Your task to perform on an android device: Is it going to rain this weekend? Image 0: 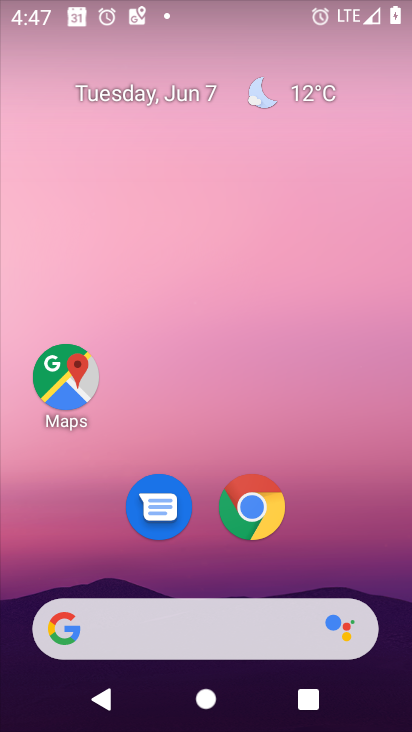
Step 0: drag from (320, 510) to (240, 7)
Your task to perform on an android device: Is it going to rain this weekend? Image 1: 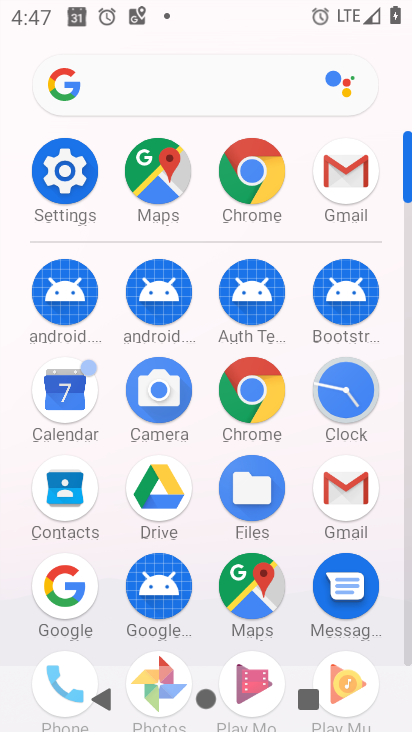
Step 1: drag from (9, 280) to (9, 186)
Your task to perform on an android device: Is it going to rain this weekend? Image 2: 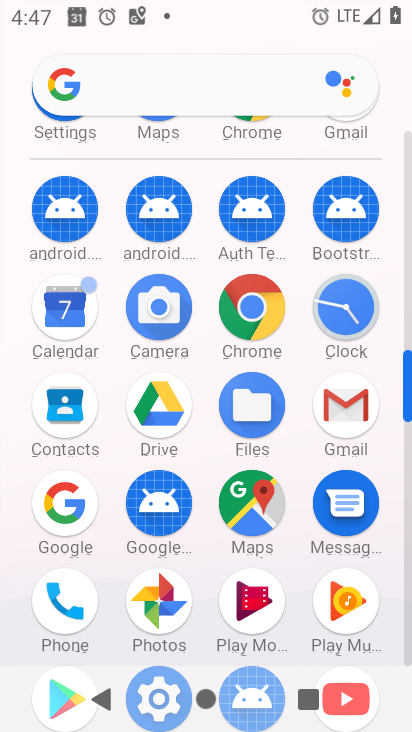
Step 2: drag from (10, 540) to (8, 185)
Your task to perform on an android device: Is it going to rain this weekend? Image 3: 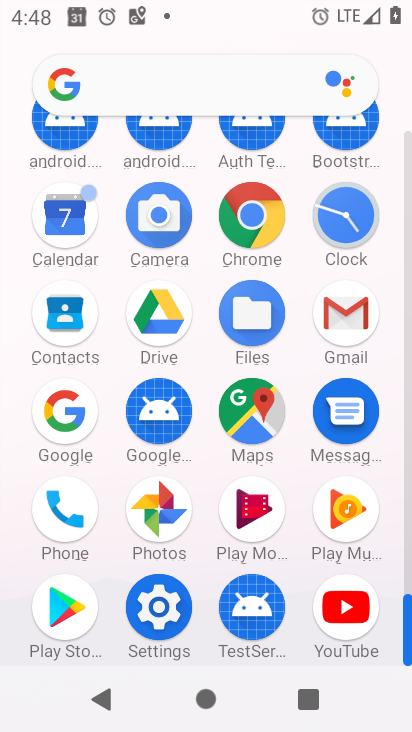
Step 3: click (160, 602)
Your task to perform on an android device: Is it going to rain this weekend? Image 4: 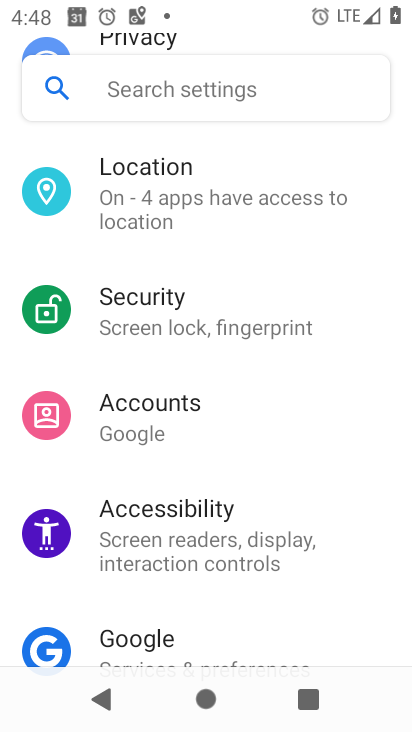
Step 4: drag from (302, 257) to (302, 608)
Your task to perform on an android device: Is it going to rain this weekend? Image 5: 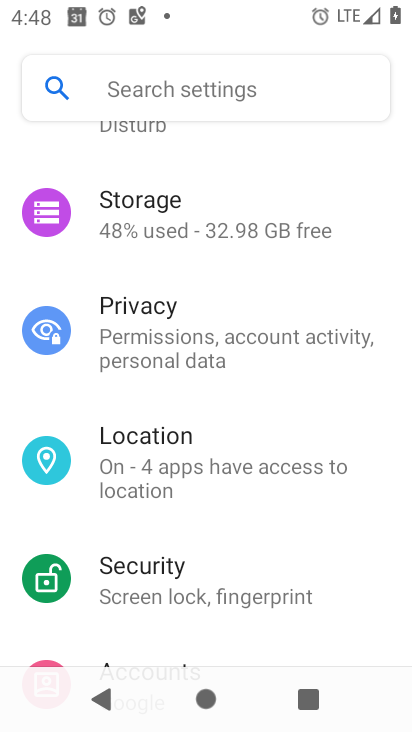
Step 5: drag from (295, 273) to (275, 581)
Your task to perform on an android device: Is it going to rain this weekend? Image 6: 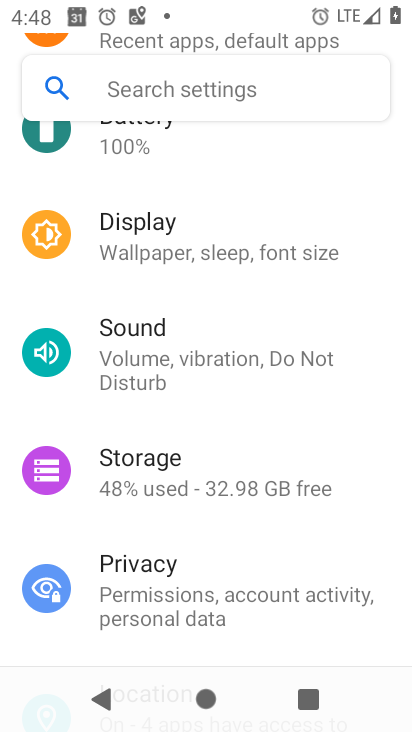
Step 6: drag from (228, 518) to (233, 200)
Your task to perform on an android device: Is it going to rain this weekend? Image 7: 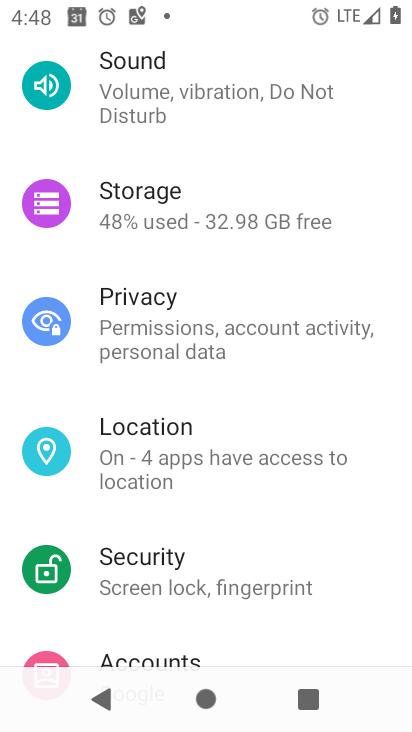
Step 7: drag from (252, 609) to (270, 192)
Your task to perform on an android device: Is it going to rain this weekend? Image 8: 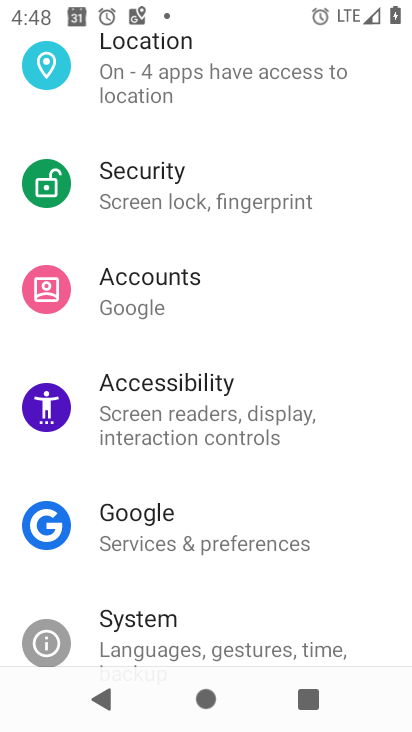
Step 8: drag from (250, 541) to (249, 161)
Your task to perform on an android device: Is it going to rain this weekend? Image 9: 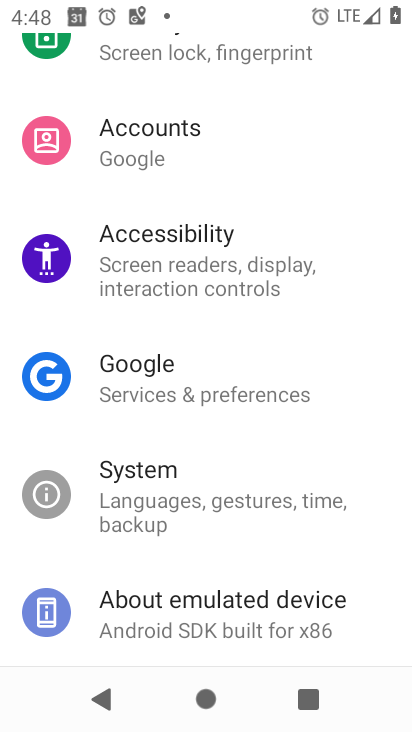
Step 9: drag from (202, 626) to (248, 295)
Your task to perform on an android device: Is it going to rain this weekend? Image 10: 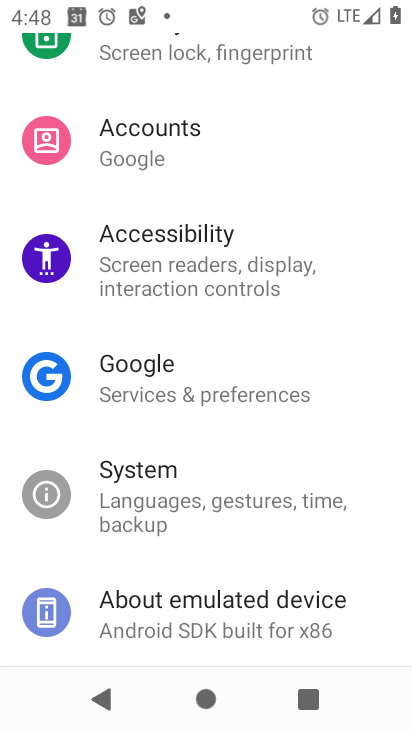
Step 10: drag from (260, 146) to (248, 613)
Your task to perform on an android device: Is it going to rain this weekend? Image 11: 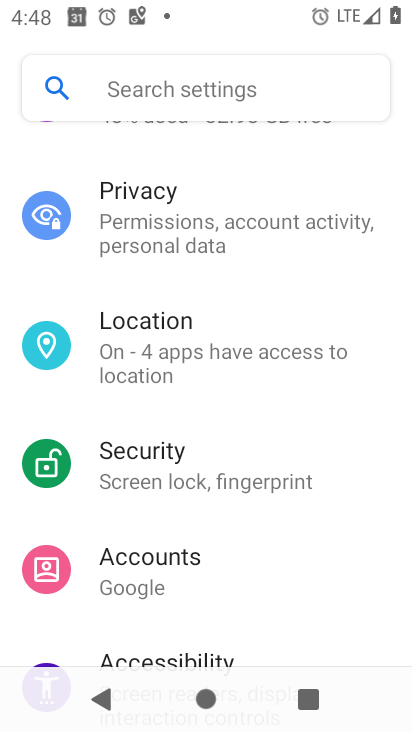
Step 11: drag from (245, 229) to (254, 598)
Your task to perform on an android device: Is it going to rain this weekend? Image 12: 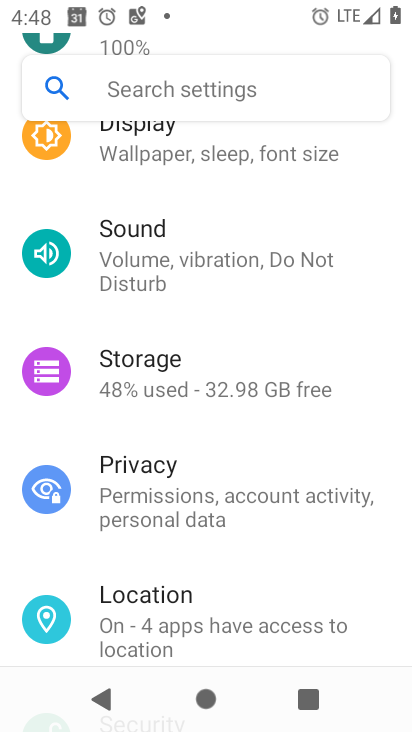
Step 12: drag from (253, 187) to (241, 576)
Your task to perform on an android device: Is it going to rain this weekend? Image 13: 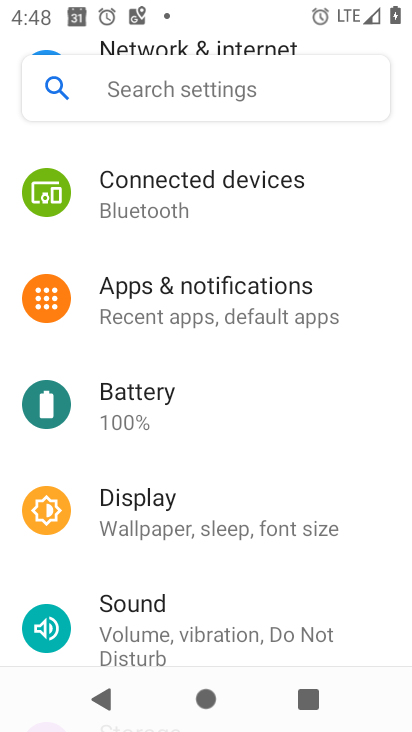
Step 13: drag from (263, 303) to (243, 606)
Your task to perform on an android device: Is it going to rain this weekend? Image 14: 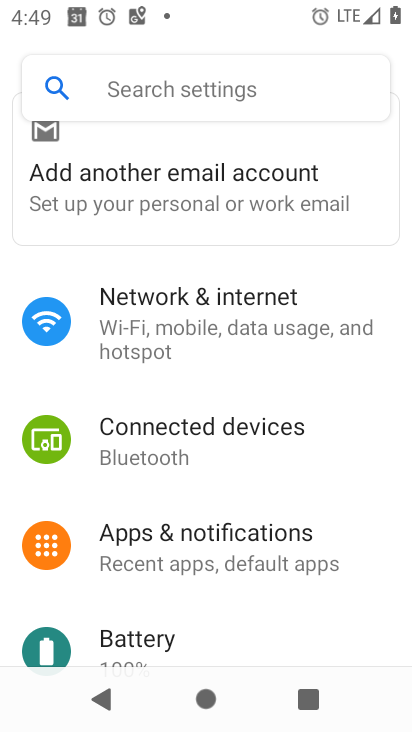
Step 14: press back button
Your task to perform on an android device: Is it going to rain this weekend? Image 15: 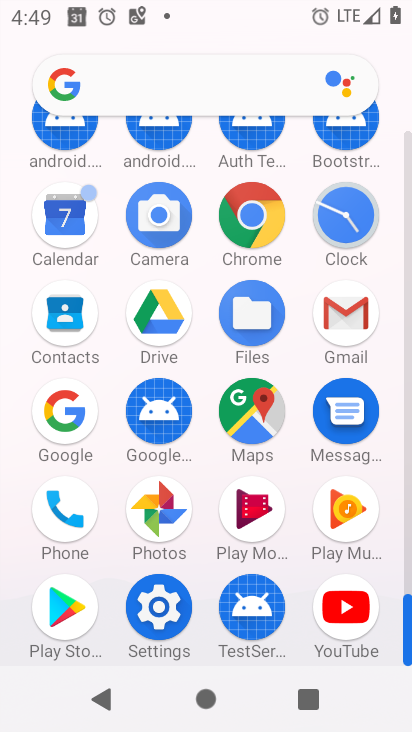
Step 15: click (250, 212)
Your task to perform on an android device: Is it going to rain this weekend? Image 16: 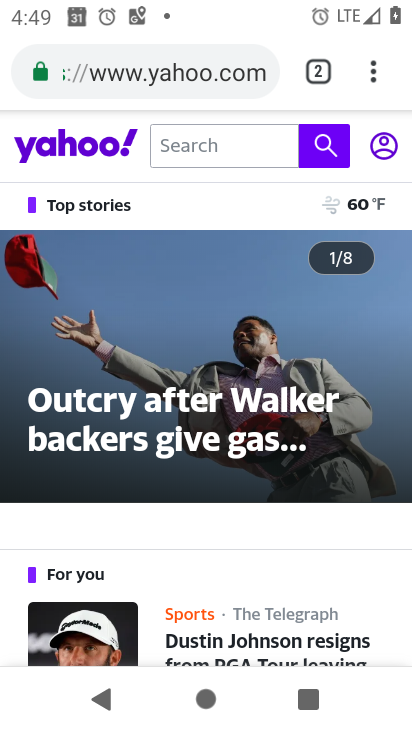
Step 16: click (183, 82)
Your task to perform on an android device: Is it going to rain this weekend? Image 17: 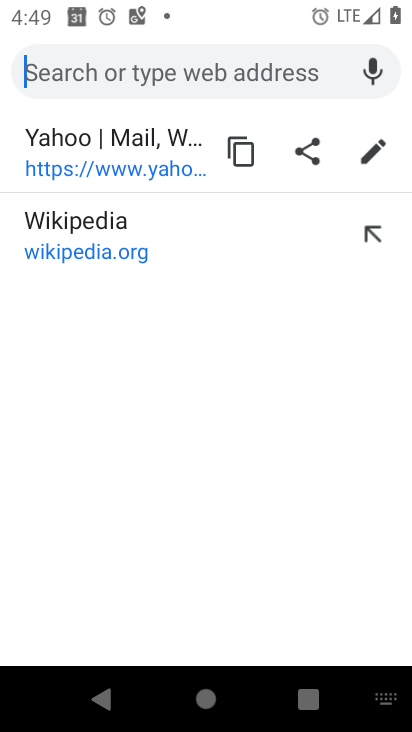
Step 17: type "Is it going to rain this weekend?"
Your task to perform on an android device: Is it going to rain this weekend? Image 18: 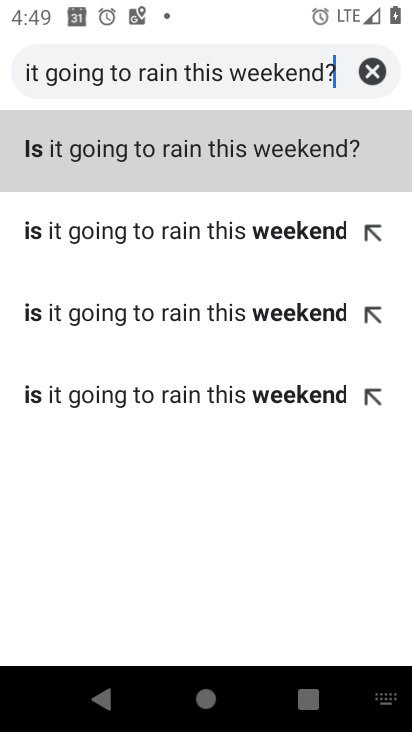
Step 18: type ""
Your task to perform on an android device: Is it going to rain this weekend? Image 19: 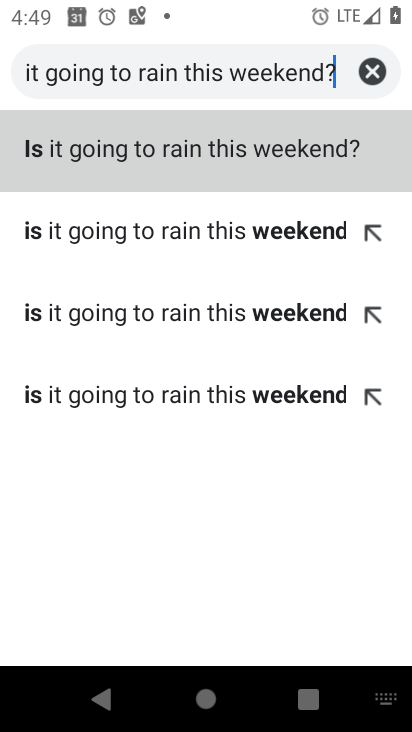
Step 19: click (150, 155)
Your task to perform on an android device: Is it going to rain this weekend? Image 20: 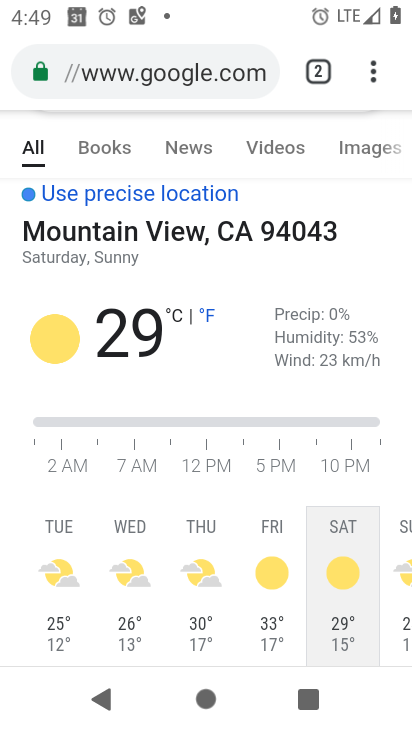
Step 20: task complete